Your task to perform on an android device: turn off notifications settings in the gmail app Image 0: 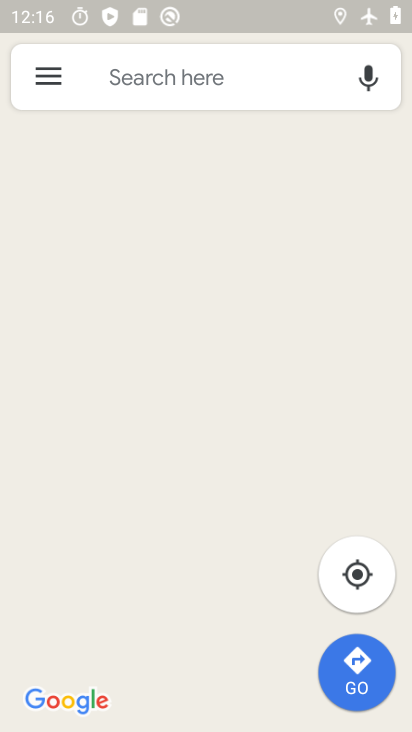
Step 0: drag from (228, 607) to (262, 347)
Your task to perform on an android device: turn off notifications settings in the gmail app Image 1: 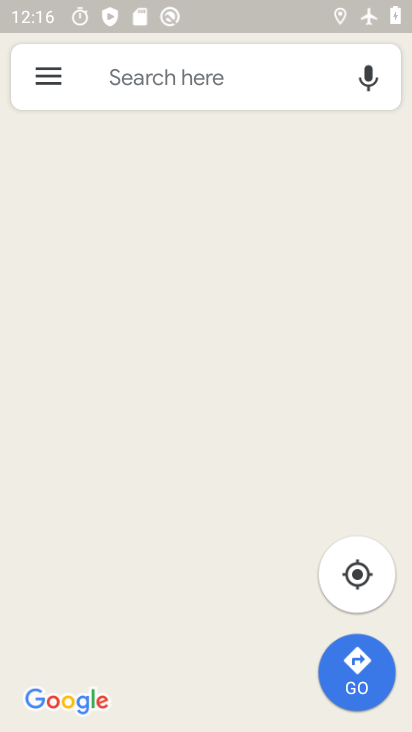
Step 1: drag from (252, 398) to (264, 286)
Your task to perform on an android device: turn off notifications settings in the gmail app Image 2: 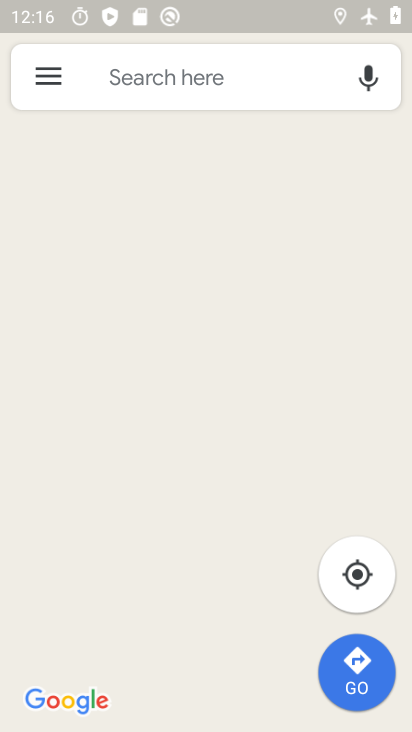
Step 2: press home button
Your task to perform on an android device: turn off notifications settings in the gmail app Image 3: 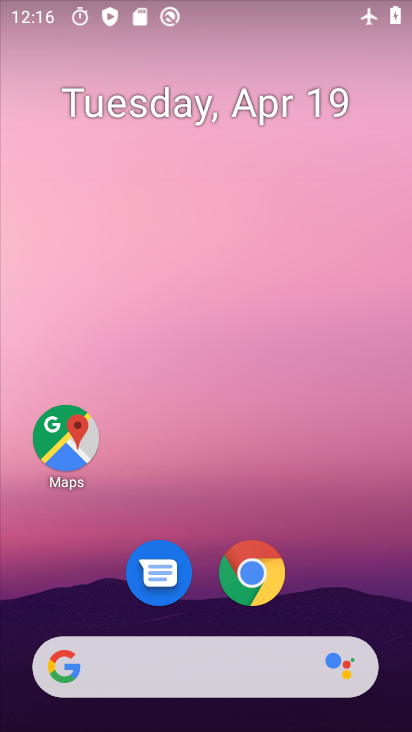
Step 3: drag from (342, 569) to (365, 362)
Your task to perform on an android device: turn off notifications settings in the gmail app Image 4: 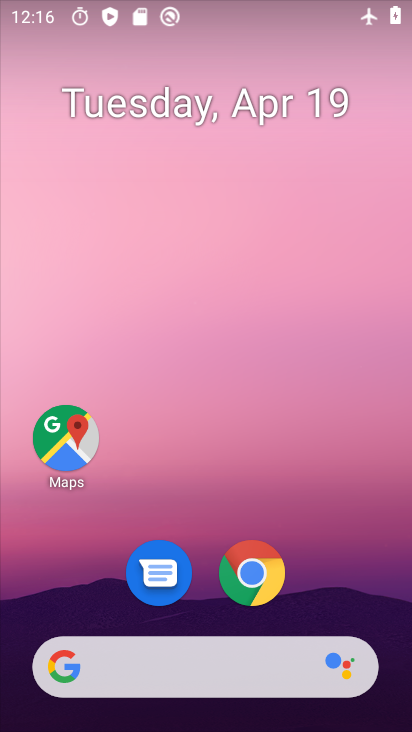
Step 4: drag from (323, 576) to (334, 217)
Your task to perform on an android device: turn off notifications settings in the gmail app Image 5: 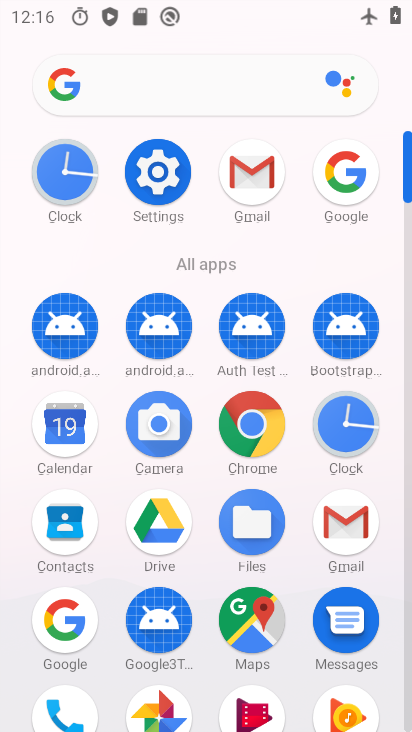
Step 5: click (258, 174)
Your task to perform on an android device: turn off notifications settings in the gmail app Image 6: 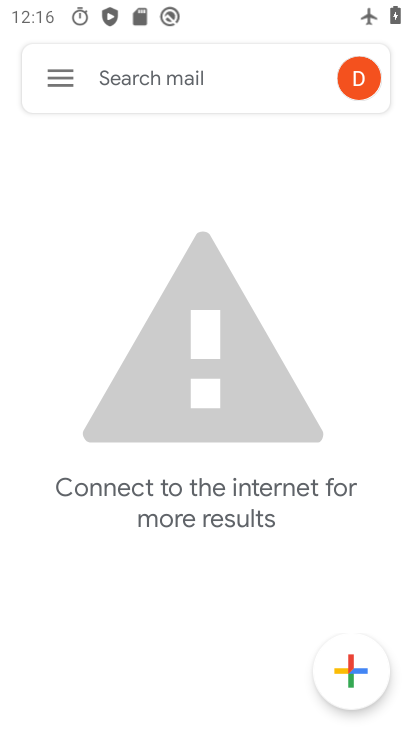
Step 6: click (67, 85)
Your task to perform on an android device: turn off notifications settings in the gmail app Image 7: 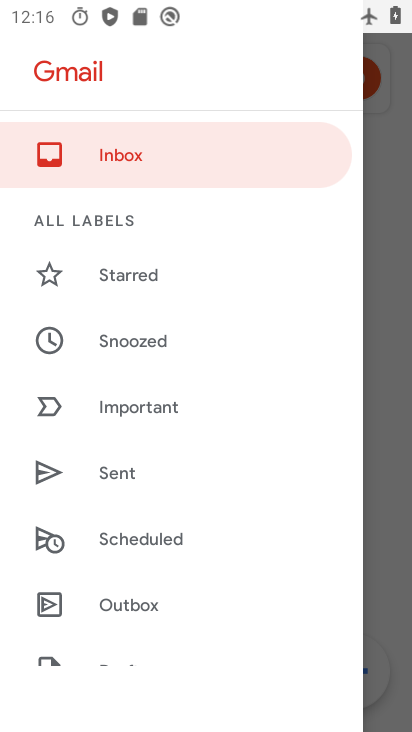
Step 7: drag from (123, 628) to (146, 136)
Your task to perform on an android device: turn off notifications settings in the gmail app Image 8: 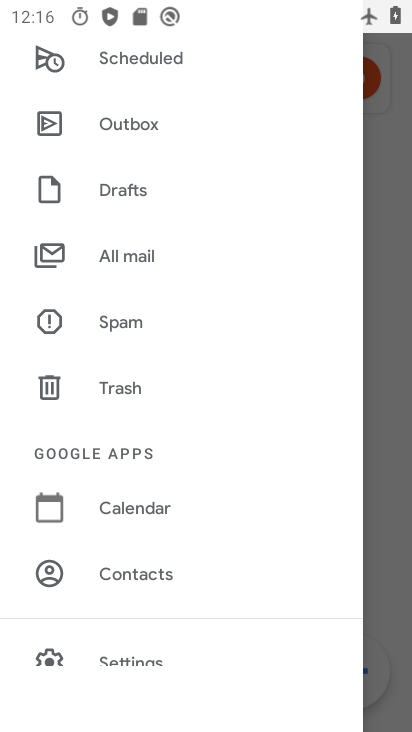
Step 8: drag from (204, 565) to (204, 209)
Your task to perform on an android device: turn off notifications settings in the gmail app Image 9: 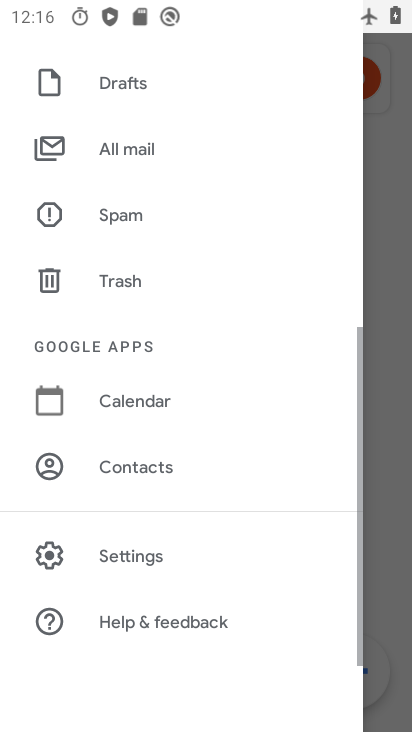
Step 9: click (133, 536)
Your task to perform on an android device: turn off notifications settings in the gmail app Image 10: 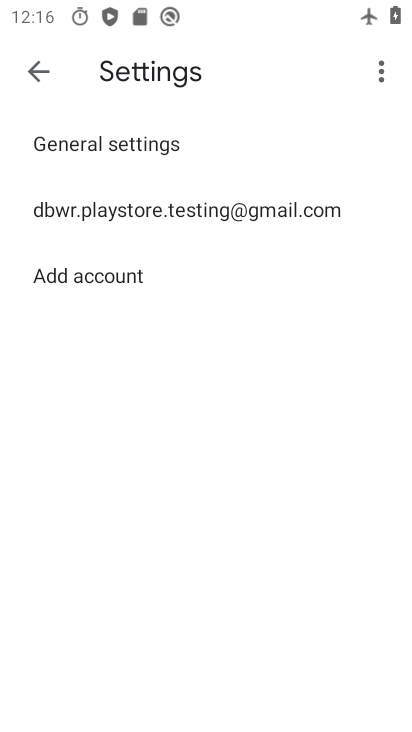
Step 10: click (134, 206)
Your task to perform on an android device: turn off notifications settings in the gmail app Image 11: 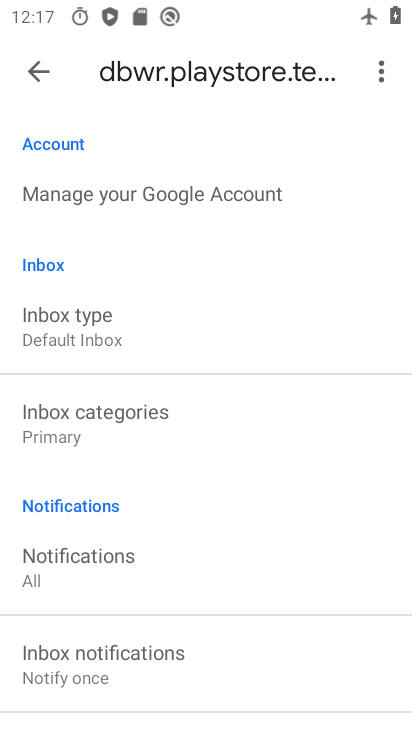
Step 11: click (118, 585)
Your task to perform on an android device: turn off notifications settings in the gmail app Image 12: 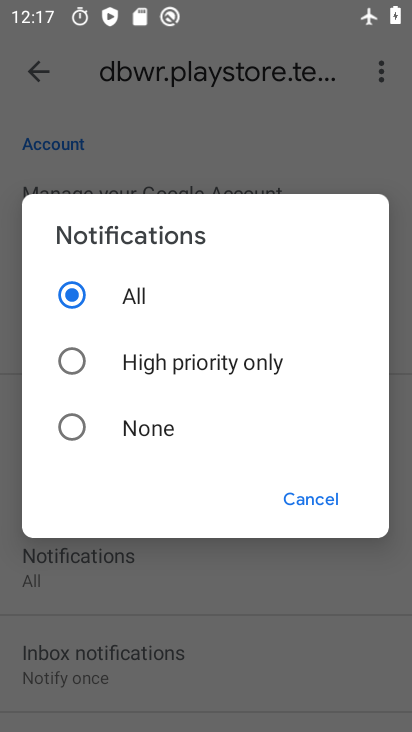
Step 12: click (165, 427)
Your task to perform on an android device: turn off notifications settings in the gmail app Image 13: 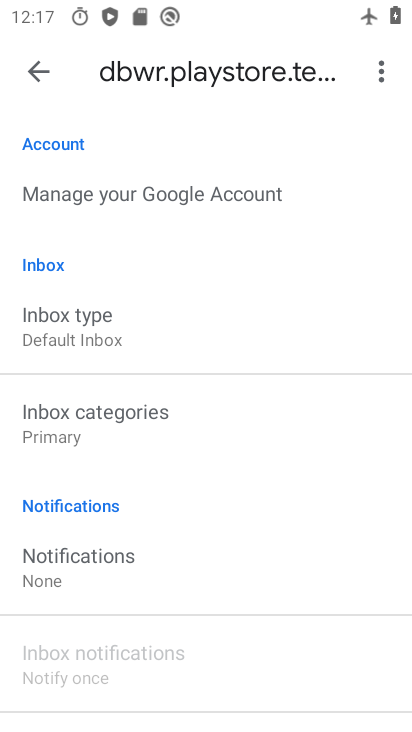
Step 13: task complete